Your task to perform on an android device: Open Wikipedia Image 0: 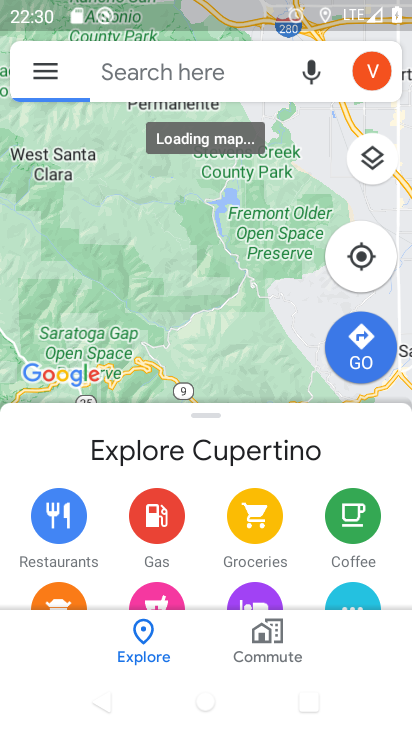
Step 0: press home button
Your task to perform on an android device: Open Wikipedia Image 1: 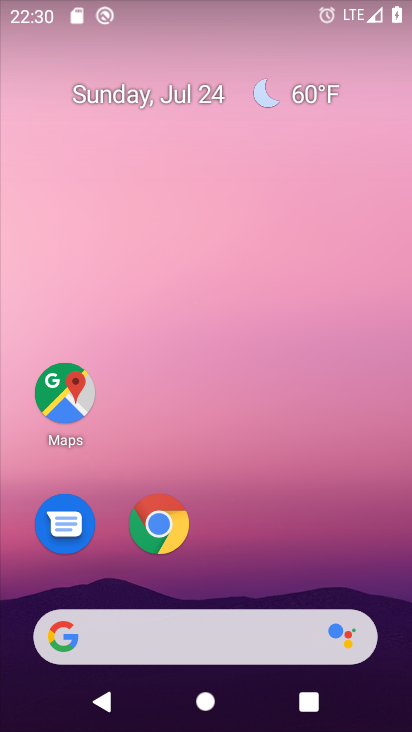
Step 1: click (170, 506)
Your task to perform on an android device: Open Wikipedia Image 2: 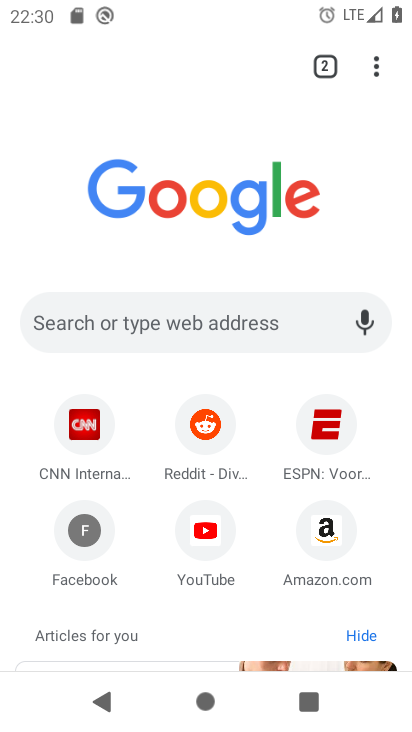
Step 2: click (234, 334)
Your task to perform on an android device: Open Wikipedia Image 3: 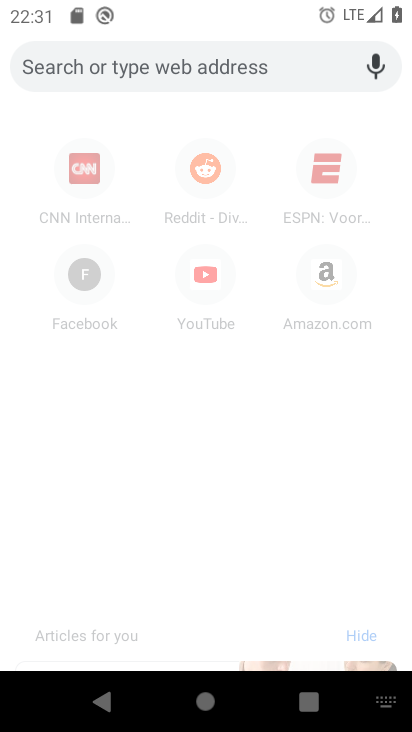
Step 3: type ""
Your task to perform on an android device: Open Wikipedia Image 4: 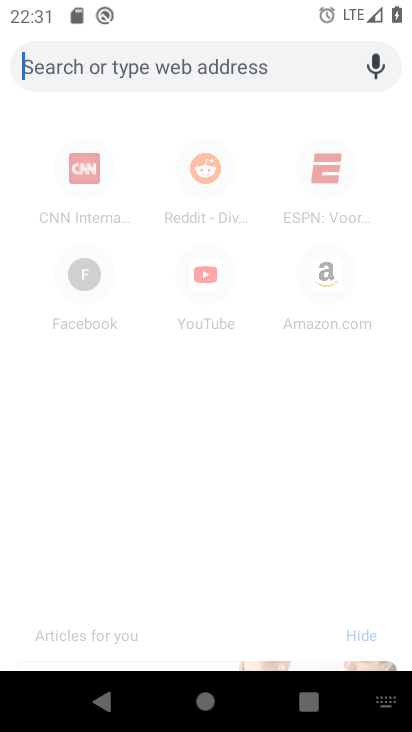
Step 4: type "wikipedia"
Your task to perform on an android device: Open Wikipedia Image 5: 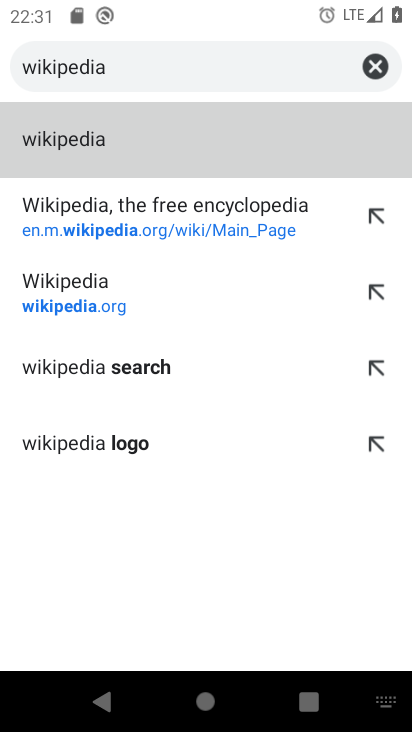
Step 5: click (247, 218)
Your task to perform on an android device: Open Wikipedia Image 6: 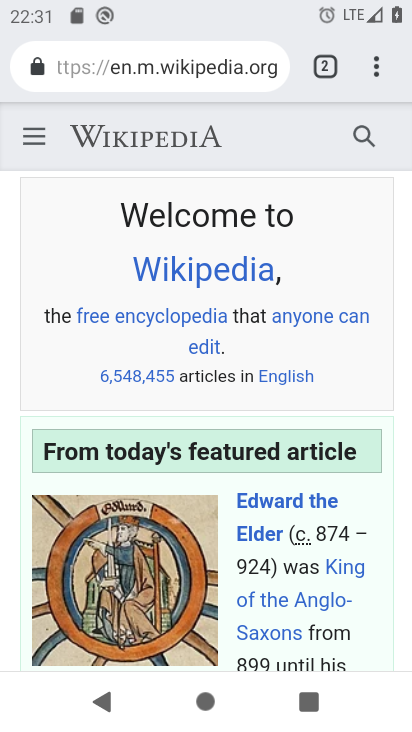
Step 6: task complete